Your task to perform on an android device: Set an alarm for 9am Image 0: 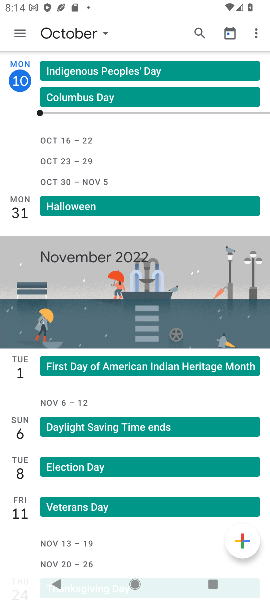
Step 0: press home button
Your task to perform on an android device: Set an alarm for 9am Image 1: 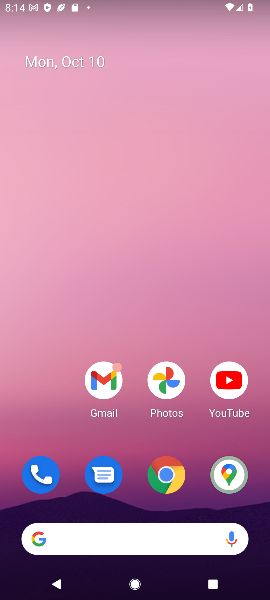
Step 1: drag from (129, 509) to (136, 263)
Your task to perform on an android device: Set an alarm for 9am Image 2: 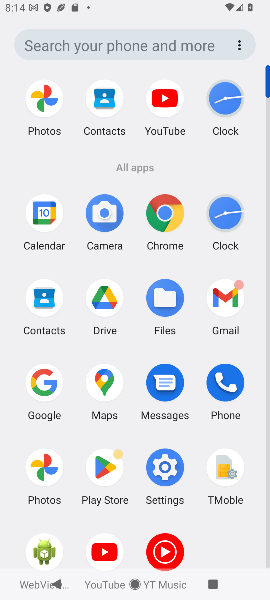
Step 2: click (225, 219)
Your task to perform on an android device: Set an alarm for 9am Image 3: 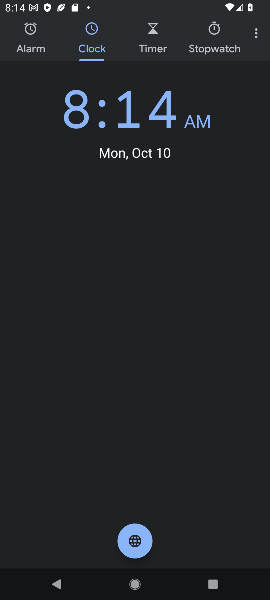
Step 3: click (27, 39)
Your task to perform on an android device: Set an alarm for 9am Image 4: 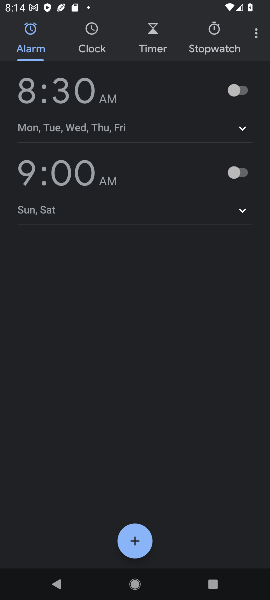
Step 4: click (252, 171)
Your task to perform on an android device: Set an alarm for 9am Image 5: 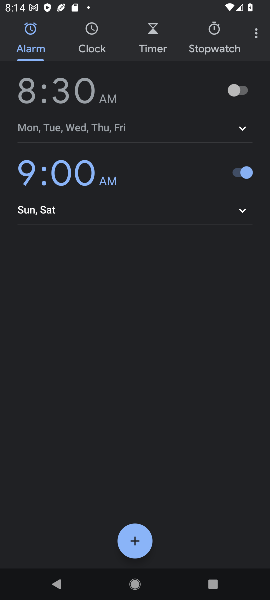
Step 5: task complete